Your task to perform on an android device: What's on my calendar today? Image 0: 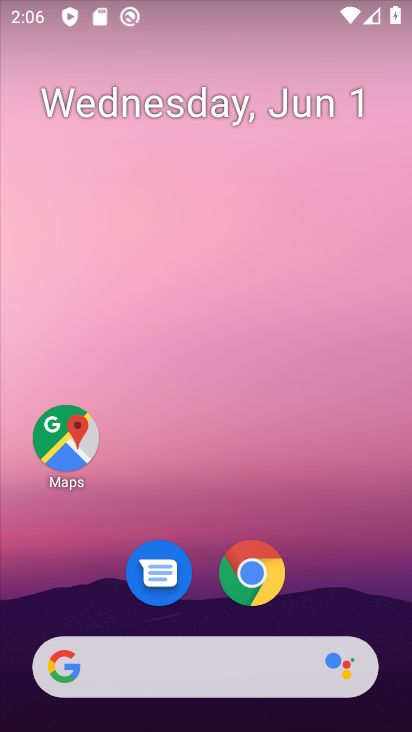
Step 0: drag from (196, 604) to (210, 20)
Your task to perform on an android device: What's on my calendar today? Image 1: 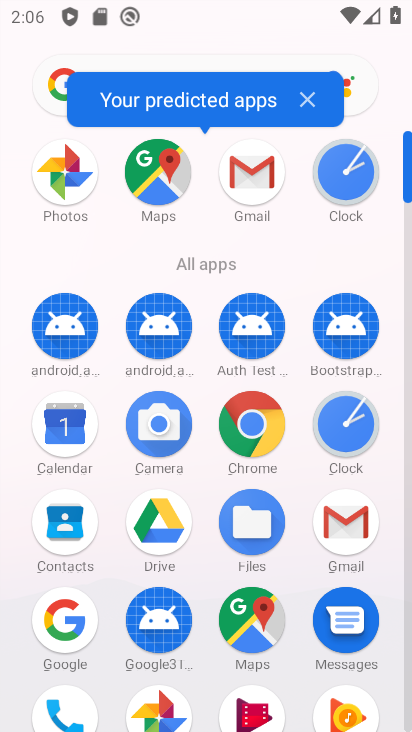
Step 1: click (66, 422)
Your task to perform on an android device: What's on my calendar today? Image 2: 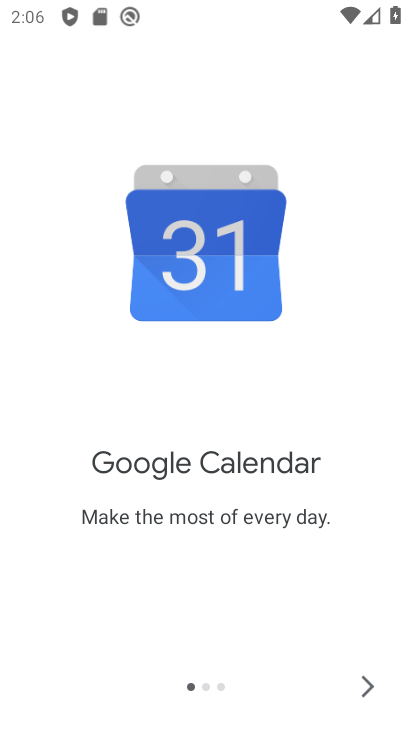
Step 2: click (373, 686)
Your task to perform on an android device: What's on my calendar today? Image 3: 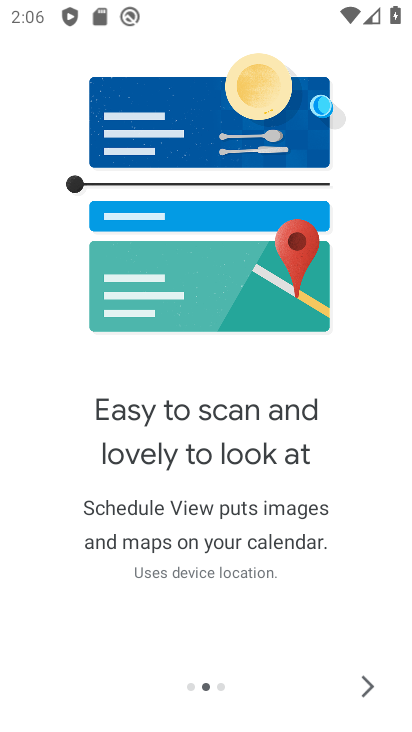
Step 3: click (373, 686)
Your task to perform on an android device: What's on my calendar today? Image 4: 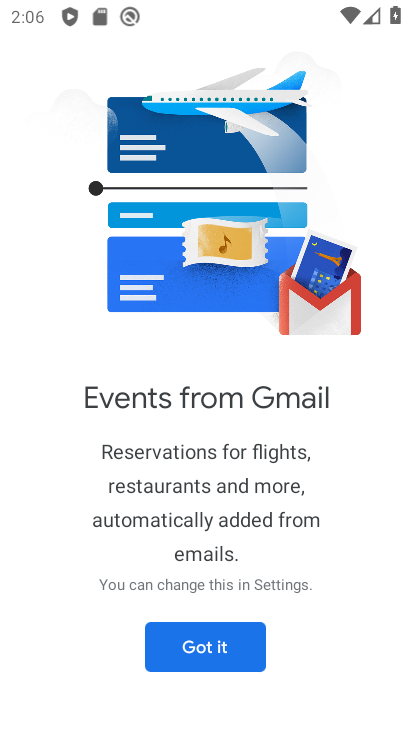
Step 4: click (227, 650)
Your task to perform on an android device: What's on my calendar today? Image 5: 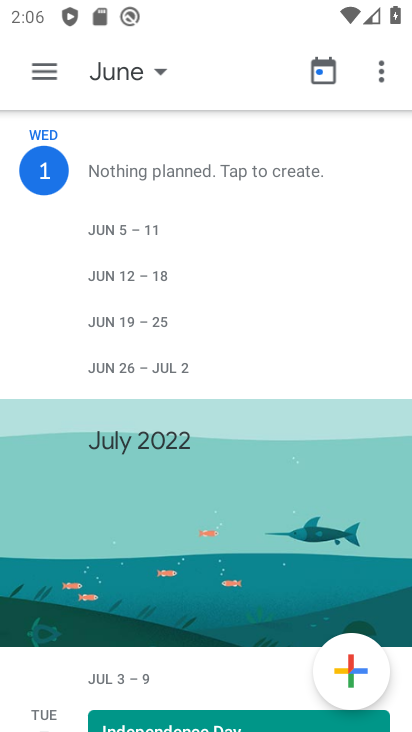
Step 5: click (35, 59)
Your task to perform on an android device: What's on my calendar today? Image 6: 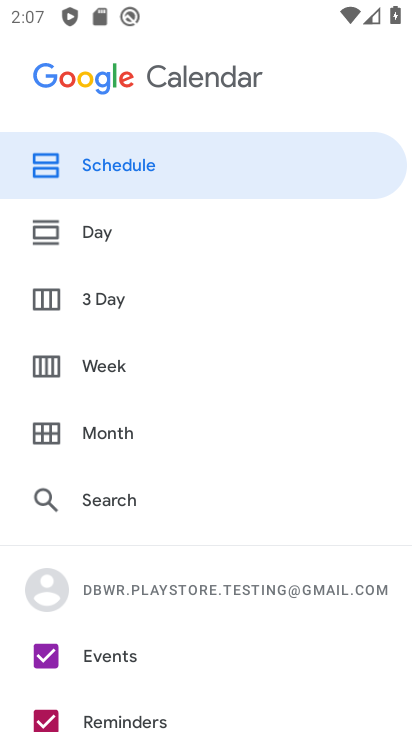
Step 6: click (171, 174)
Your task to perform on an android device: What's on my calendar today? Image 7: 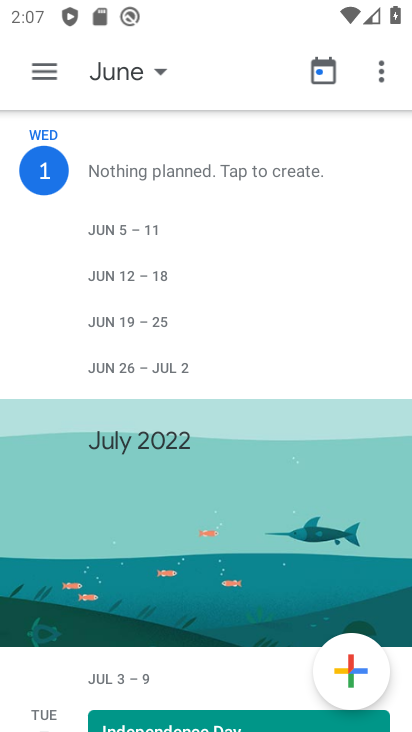
Step 7: drag from (172, 222) to (186, 436)
Your task to perform on an android device: What's on my calendar today? Image 8: 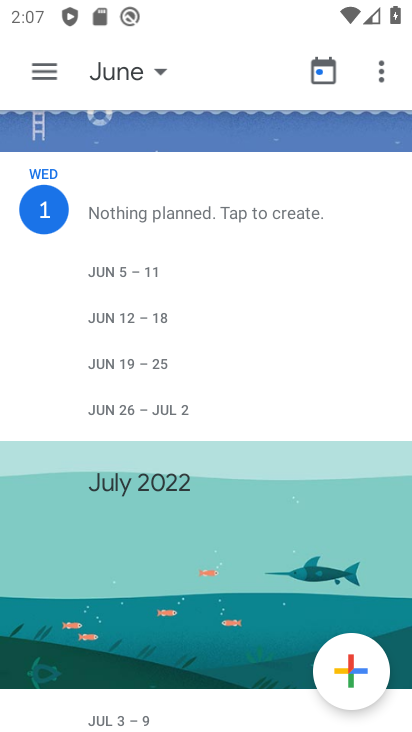
Step 8: click (155, 72)
Your task to perform on an android device: What's on my calendar today? Image 9: 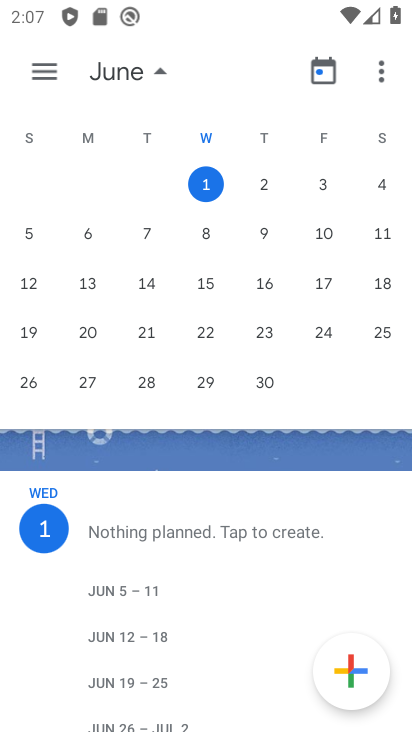
Step 9: click (203, 174)
Your task to perform on an android device: What's on my calendar today? Image 10: 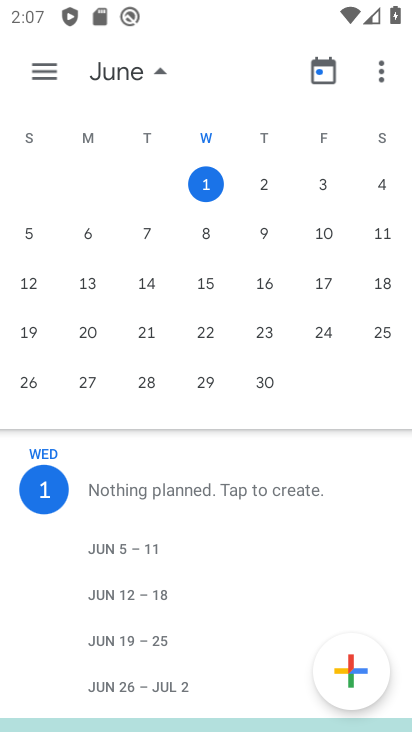
Step 10: task complete